Your task to perform on an android device: choose inbox layout in the gmail app Image 0: 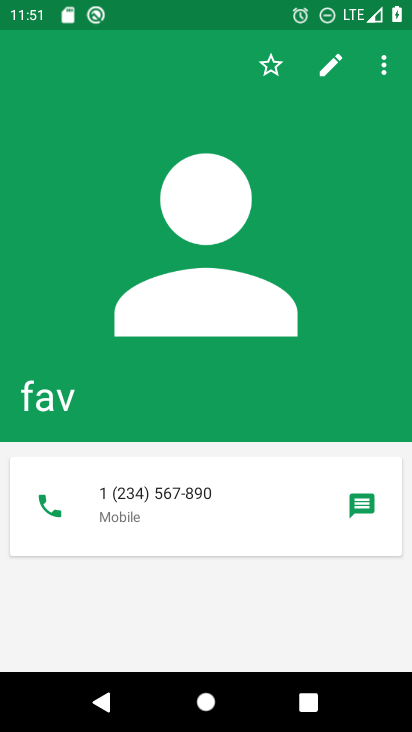
Step 0: press home button
Your task to perform on an android device: choose inbox layout in the gmail app Image 1: 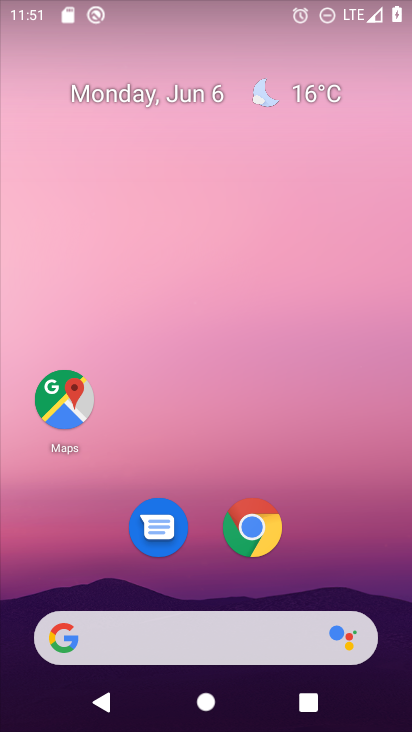
Step 1: drag from (363, 543) to (360, 83)
Your task to perform on an android device: choose inbox layout in the gmail app Image 2: 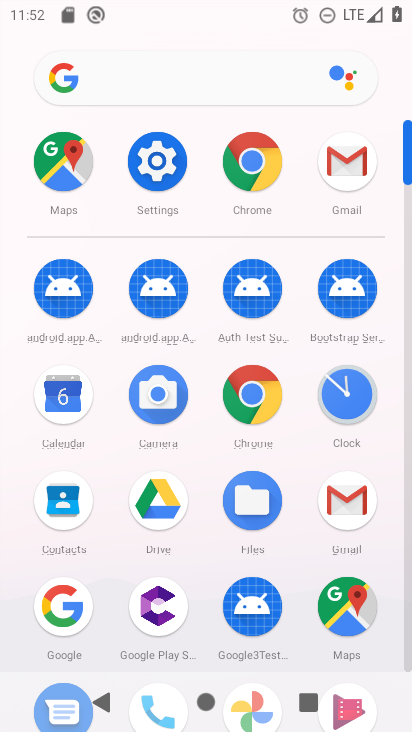
Step 2: click (354, 507)
Your task to perform on an android device: choose inbox layout in the gmail app Image 3: 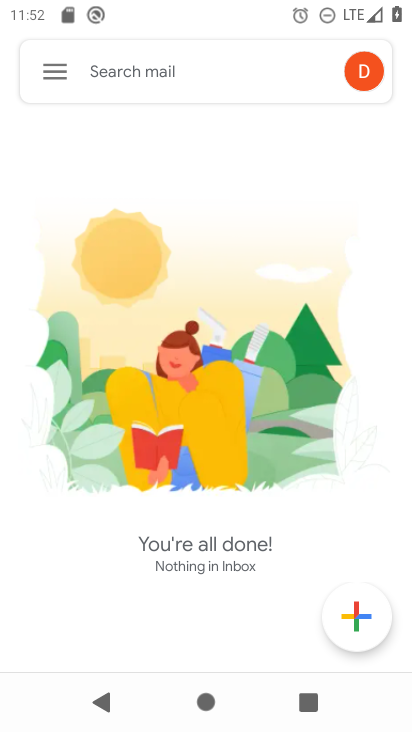
Step 3: click (50, 68)
Your task to perform on an android device: choose inbox layout in the gmail app Image 4: 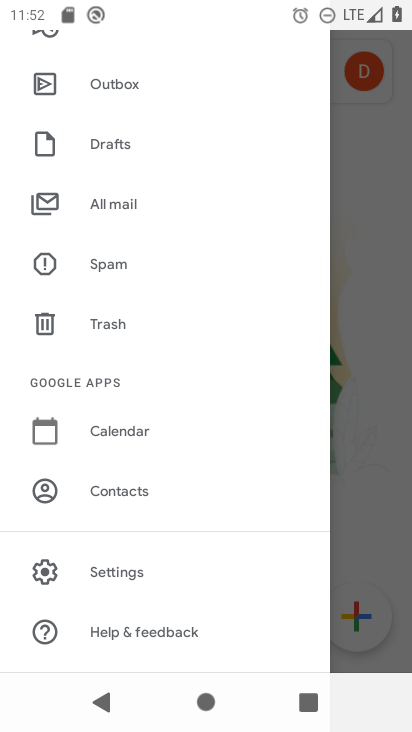
Step 4: drag from (251, 390) to (250, 191)
Your task to perform on an android device: choose inbox layout in the gmail app Image 5: 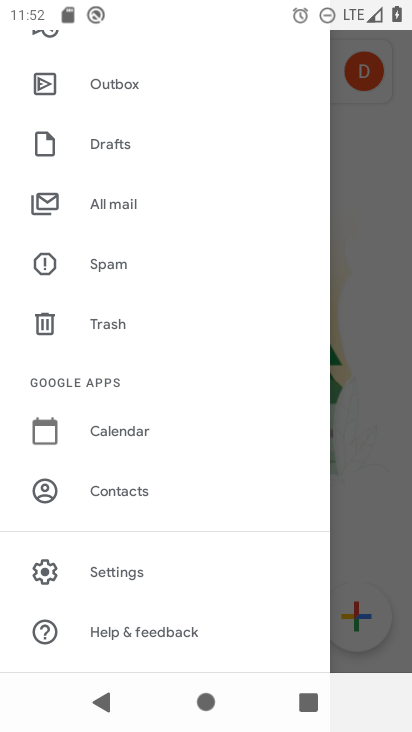
Step 5: click (136, 562)
Your task to perform on an android device: choose inbox layout in the gmail app Image 6: 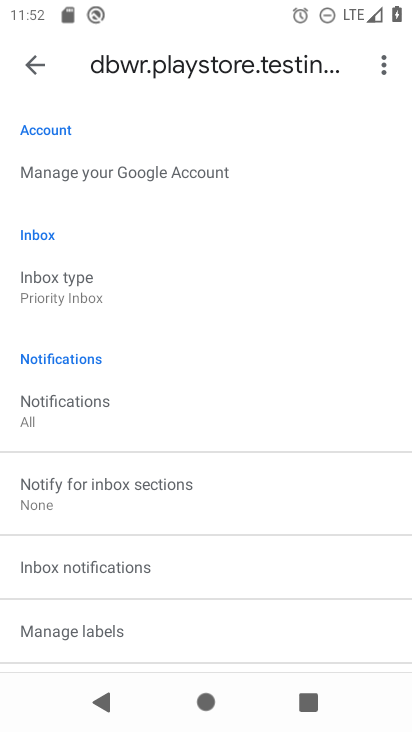
Step 6: drag from (267, 250) to (288, 427)
Your task to perform on an android device: choose inbox layout in the gmail app Image 7: 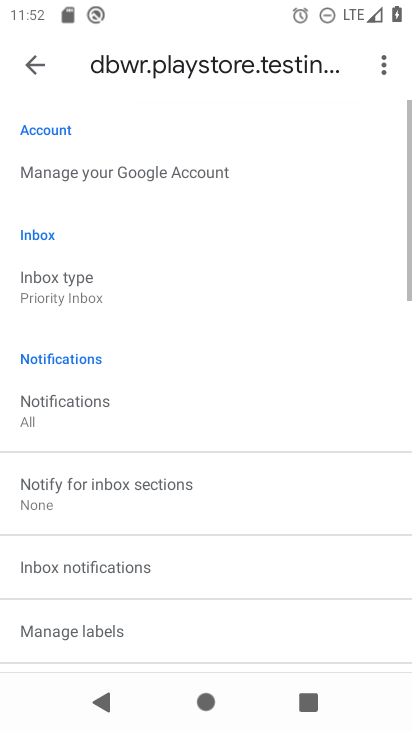
Step 7: drag from (288, 450) to (290, 289)
Your task to perform on an android device: choose inbox layout in the gmail app Image 8: 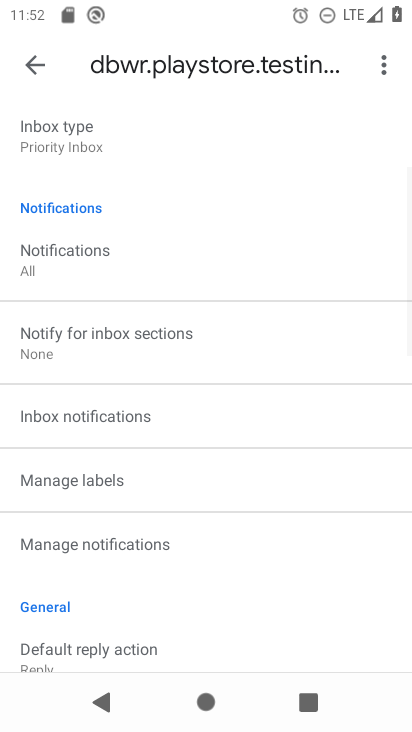
Step 8: drag from (305, 463) to (327, 315)
Your task to perform on an android device: choose inbox layout in the gmail app Image 9: 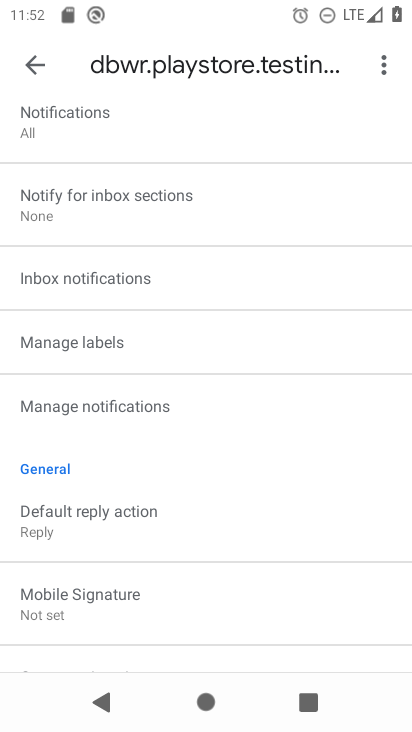
Step 9: drag from (327, 455) to (332, 292)
Your task to perform on an android device: choose inbox layout in the gmail app Image 10: 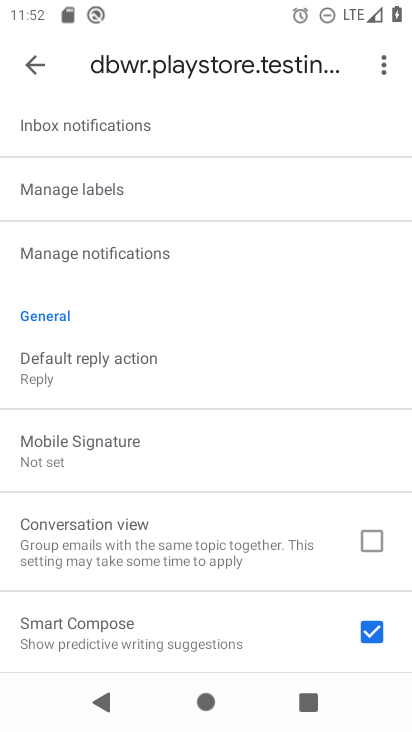
Step 10: drag from (321, 480) to (320, 260)
Your task to perform on an android device: choose inbox layout in the gmail app Image 11: 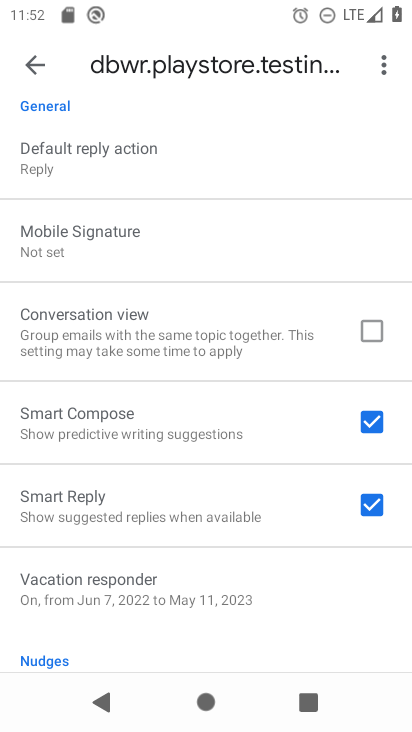
Step 11: drag from (315, 542) to (314, 285)
Your task to perform on an android device: choose inbox layout in the gmail app Image 12: 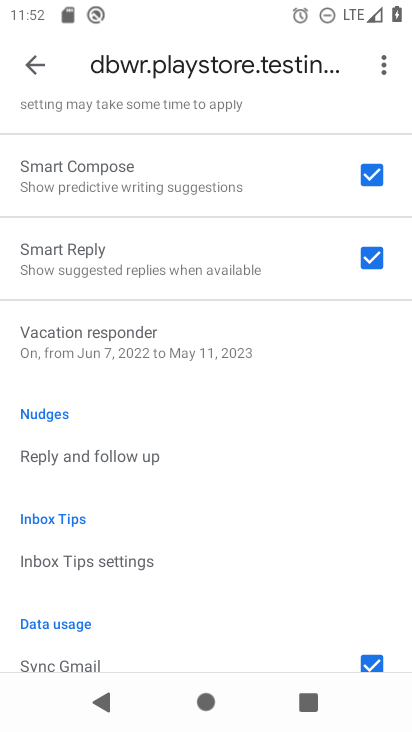
Step 12: drag from (312, 475) to (314, 216)
Your task to perform on an android device: choose inbox layout in the gmail app Image 13: 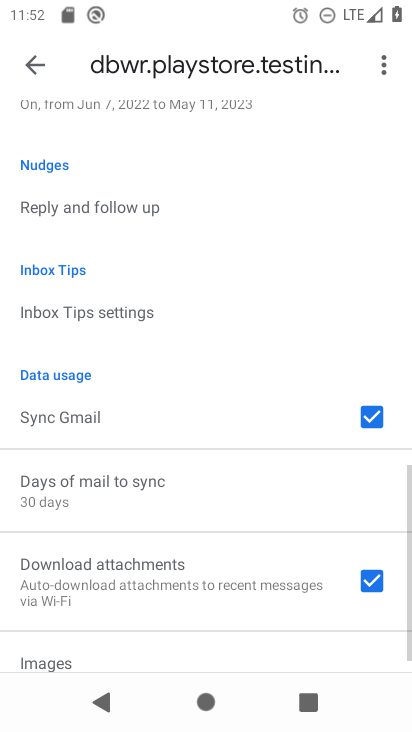
Step 13: drag from (309, 164) to (300, 382)
Your task to perform on an android device: choose inbox layout in the gmail app Image 14: 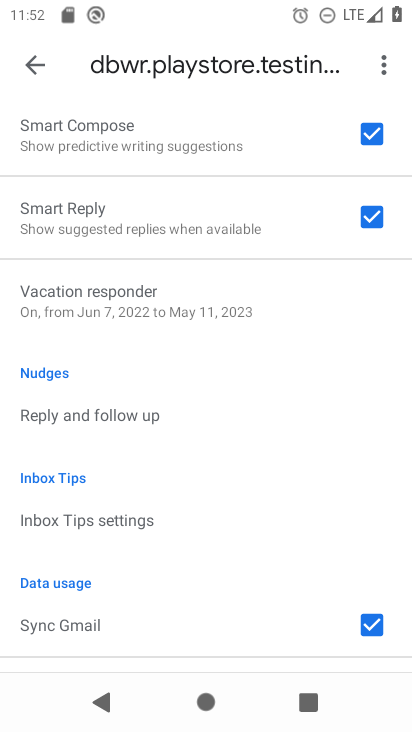
Step 14: drag from (291, 165) to (289, 328)
Your task to perform on an android device: choose inbox layout in the gmail app Image 15: 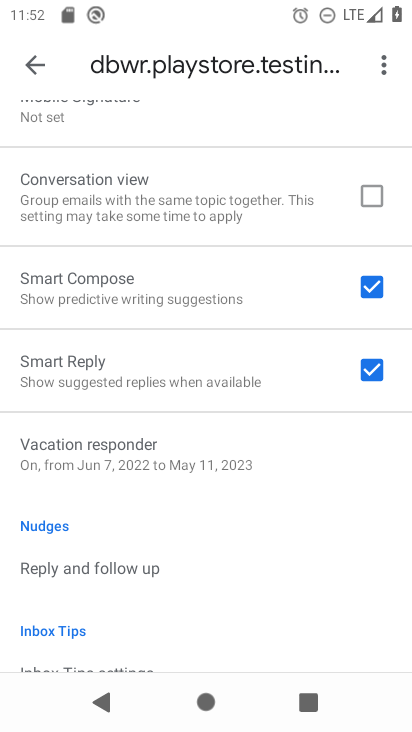
Step 15: drag from (286, 162) to (286, 338)
Your task to perform on an android device: choose inbox layout in the gmail app Image 16: 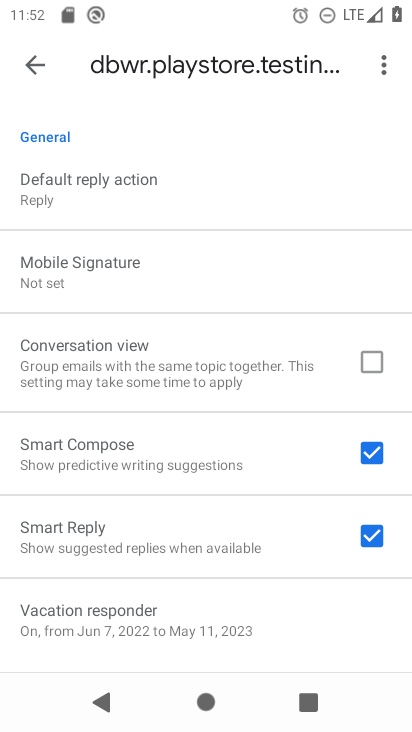
Step 16: drag from (258, 145) to (247, 367)
Your task to perform on an android device: choose inbox layout in the gmail app Image 17: 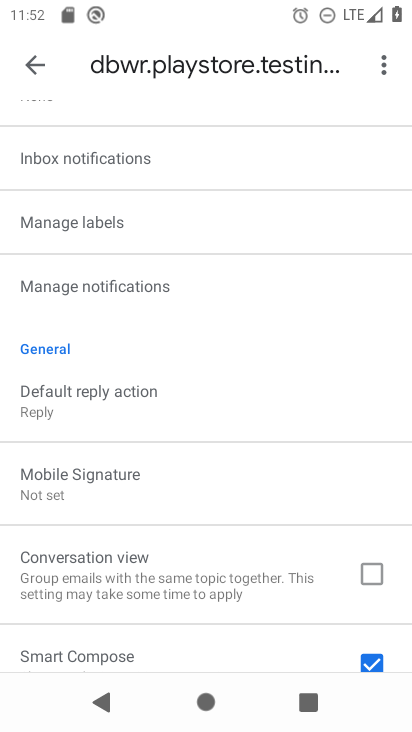
Step 17: drag from (246, 183) to (240, 357)
Your task to perform on an android device: choose inbox layout in the gmail app Image 18: 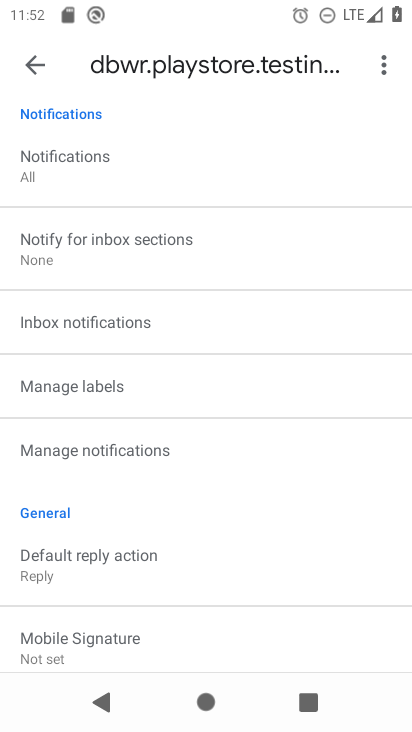
Step 18: drag from (241, 174) to (247, 335)
Your task to perform on an android device: choose inbox layout in the gmail app Image 19: 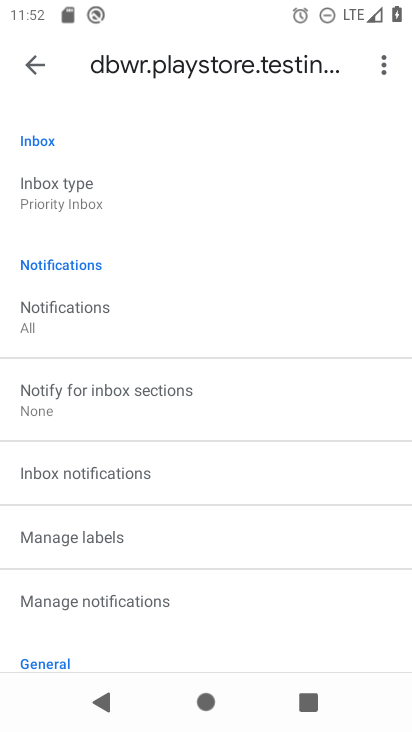
Step 19: click (102, 206)
Your task to perform on an android device: choose inbox layout in the gmail app Image 20: 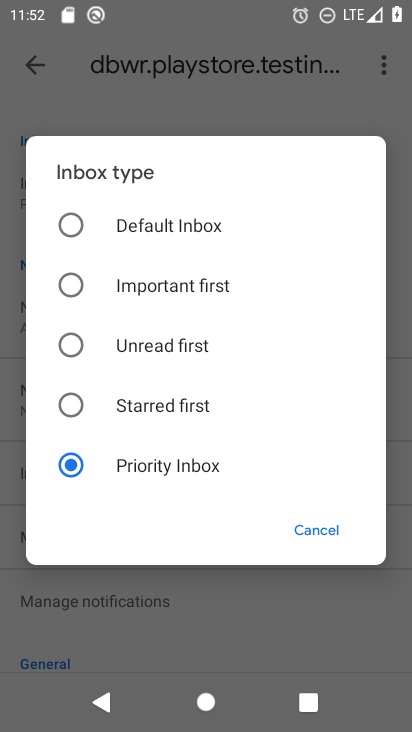
Step 20: click (65, 219)
Your task to perform on an android device: choose inbox layout in the gmail app Image 21: 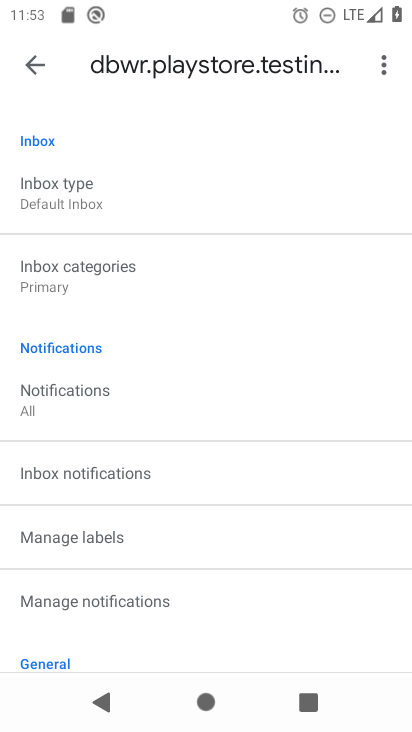
Step 21: task complete